Your task to perform on an android device: Show me productivity apps on the Play Store Image 0: 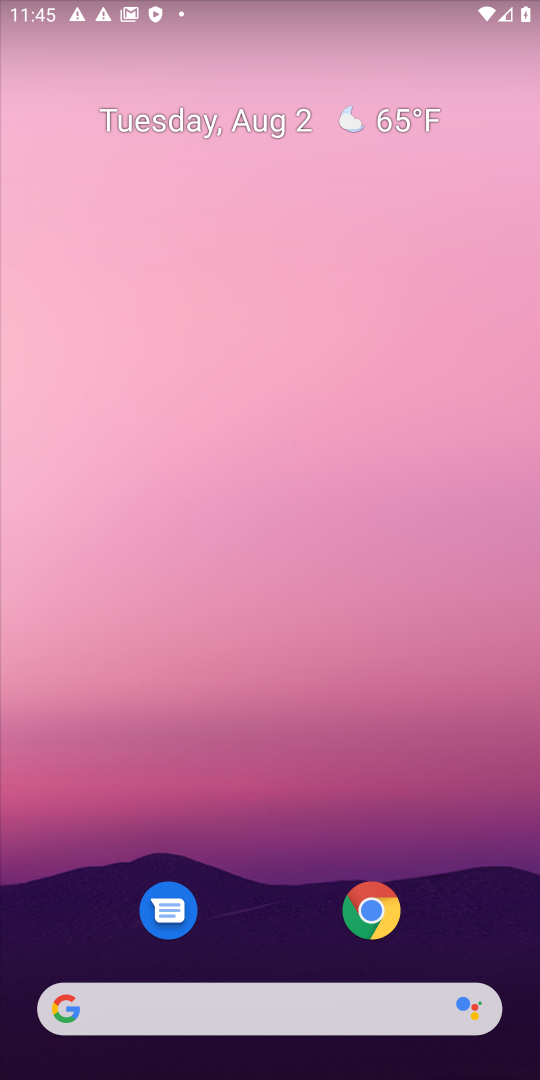
Step 0: drag from (280, 956) to (325, 54)
Your task to perform on an android device: Show me productivity apps on the Play Store Image 1: 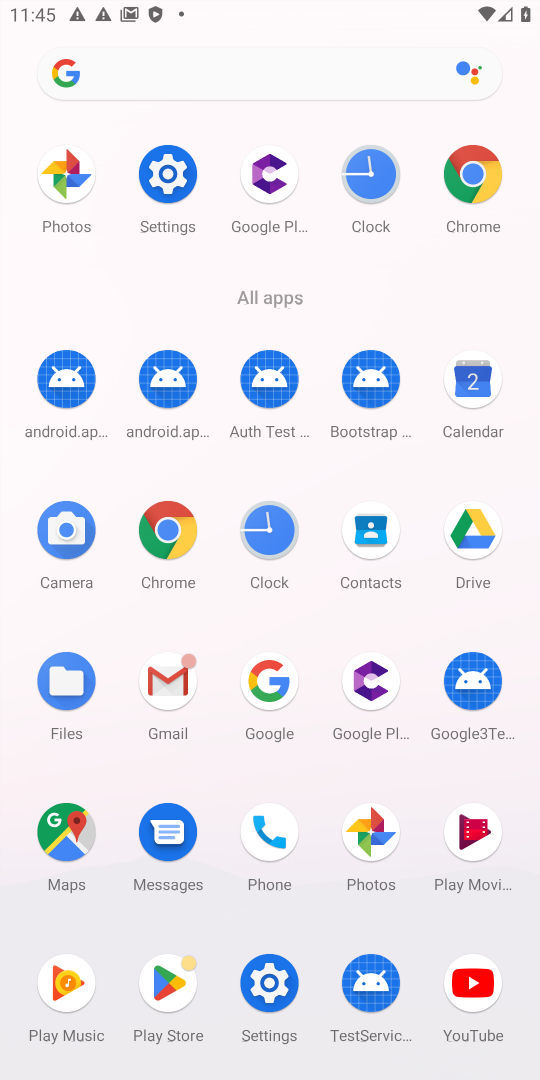
Step 1: click (170, 973)
Your task to perform on an android device: Show me productivity apps on the Play Store Image 2: 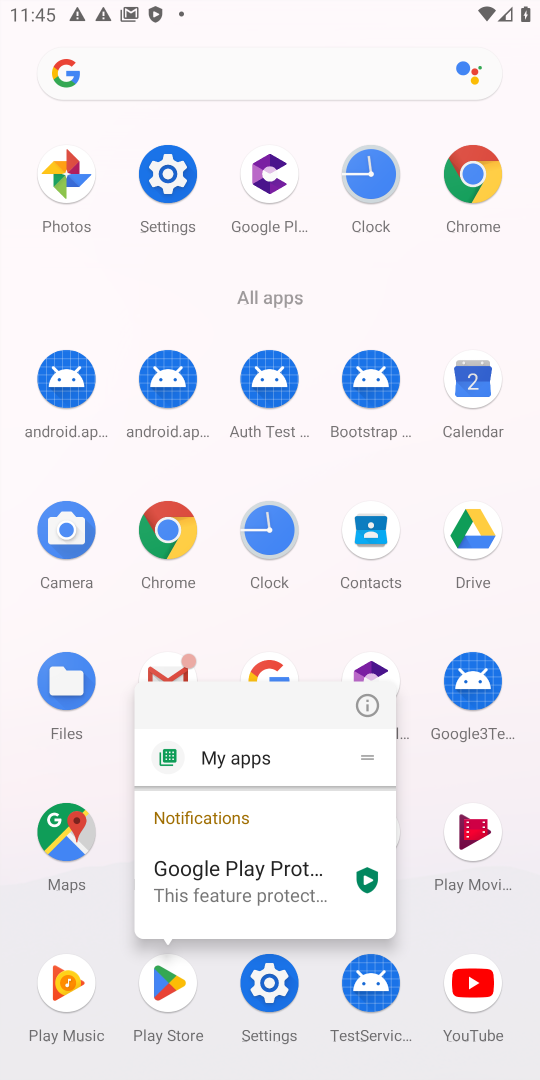
Step 2: click (163, 985)
Your task to perform on an android device: Show me productivity apps on the Play Store Image 3: 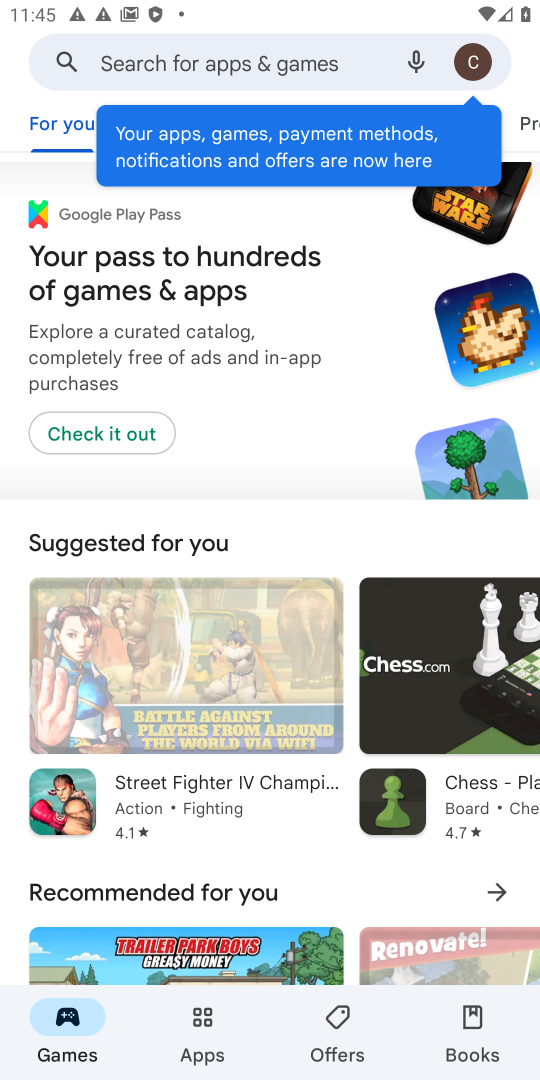
Step 3: click (188, 1043)
Your task to perform on an android device: Show me productivity apps on the Play Store Image 4: 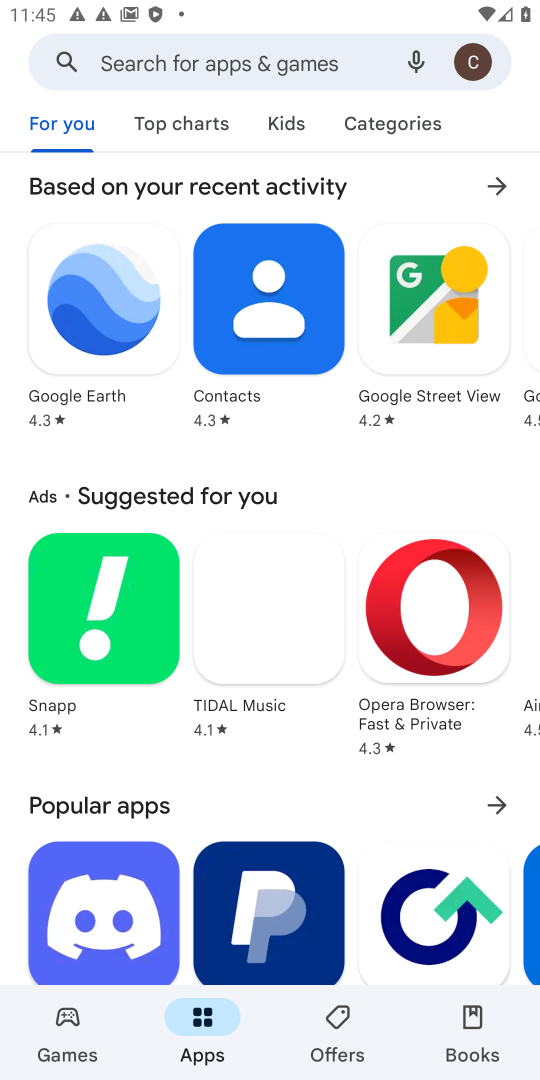
Step 4: click (393, 131)
Your task to perform on an android device: Show me productivity apps on the Play Store Image 5: 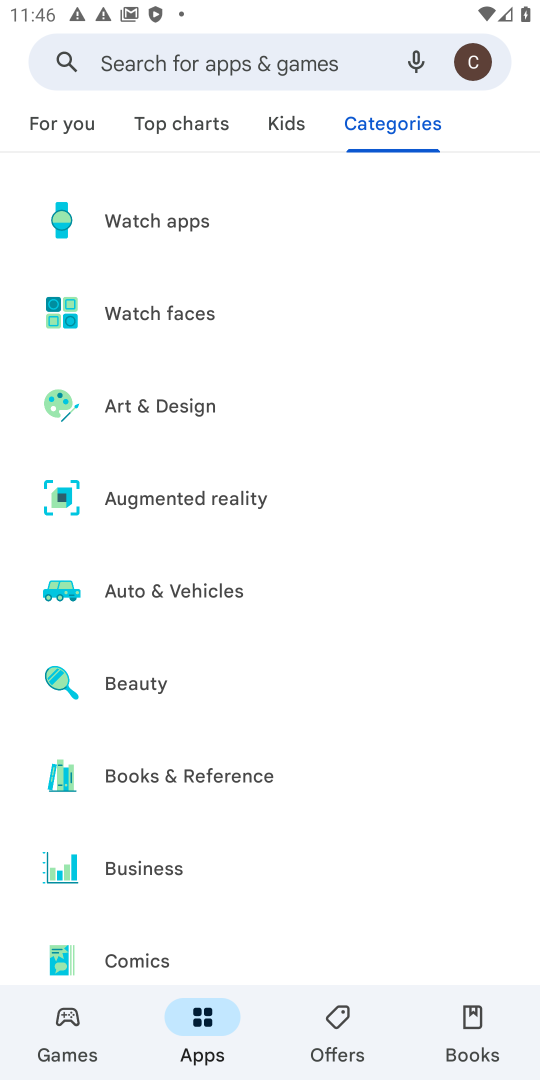
Step 5: drag from (301, 803) to (301, 149)
Your task to perform on an android device: Show me productivity apps on the Play Store Image 6: 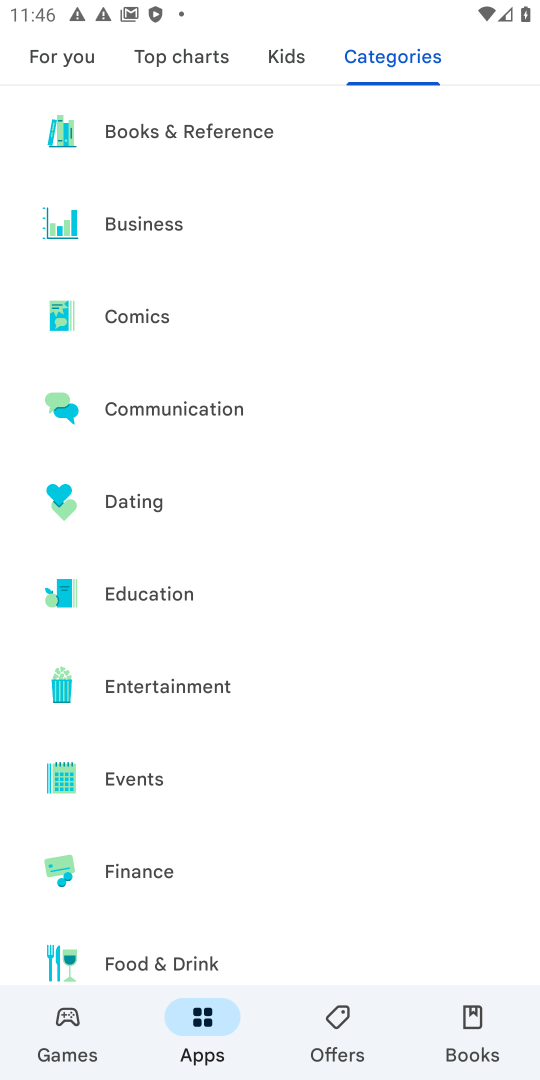
Step 6: drag from (286, 785) to (273, 183)
Your task to perform on an android device: Show me productivity apps on the Play Store Image 7: 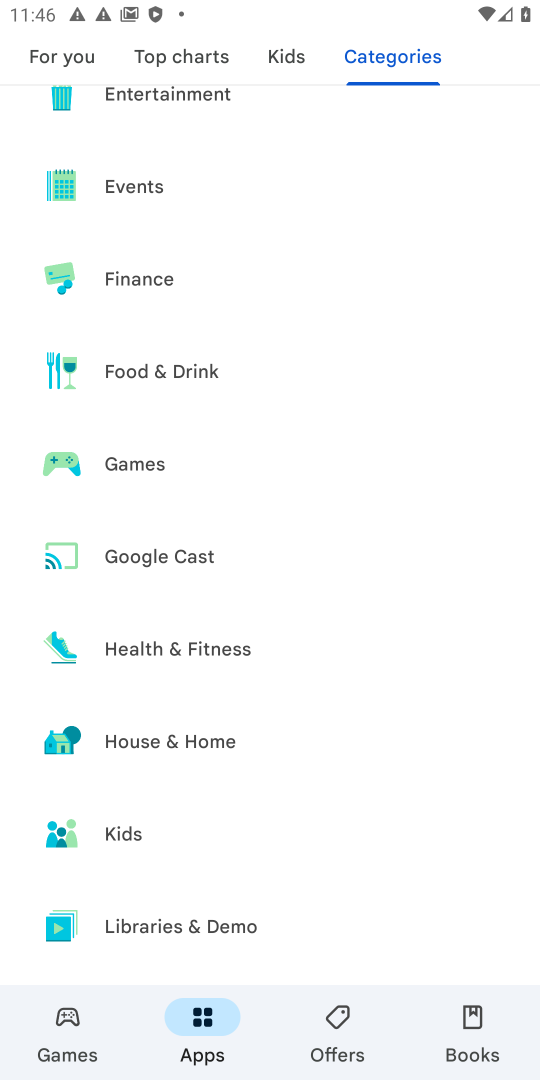
Step 7: drag from (240, 788) to (245, 153)
Your task to perform on an android device: Show me productivity apps on the Play Store Image 8: 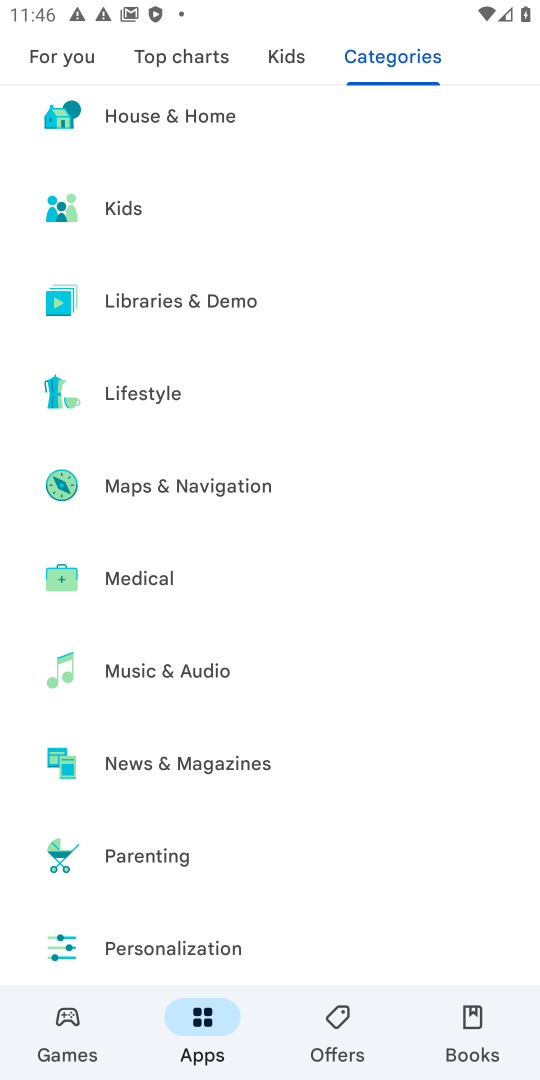
Step 8: drag from (333, 861) to (323, 252)
Your task to perform on an android device: Show me productivity apps on the Play Store Image 9: 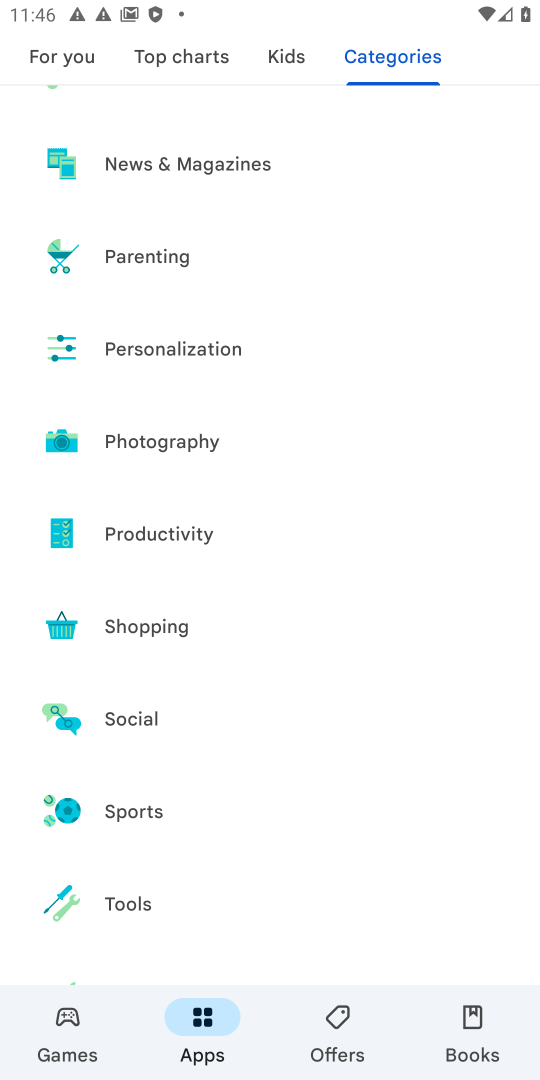
Step 9: click (156, 526)
Your task to perform on an android device: Show me productivity apps on the Play Store Image 10: 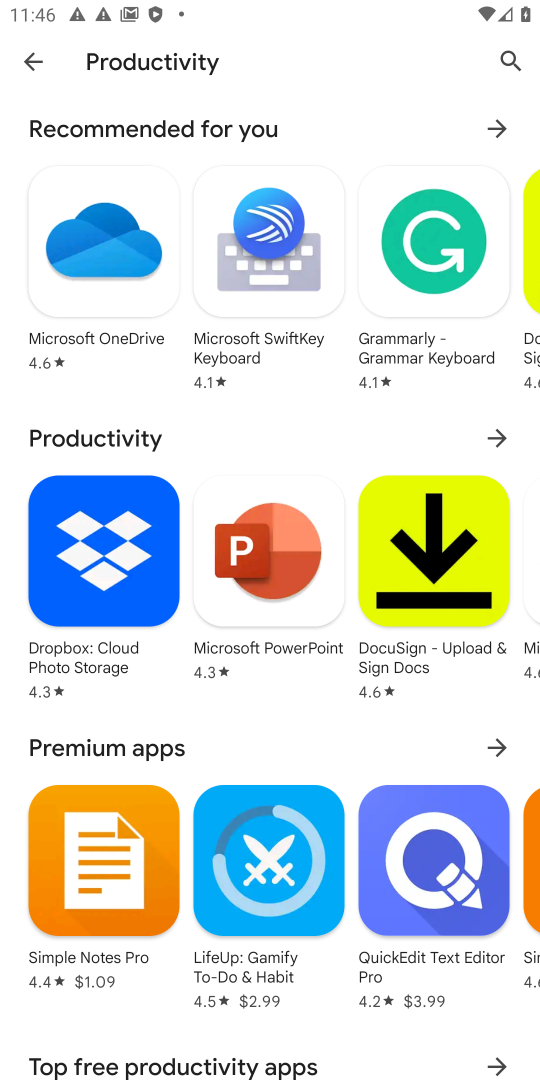
Step 10: task complete